Your task to perform on an android device: refresh tabs in the chrome app Image 0: 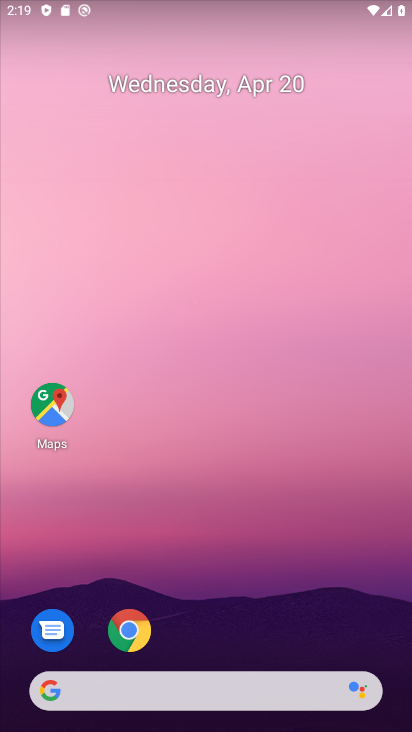
Step 0: click (140, 621)
Your task to perform on an android device: refresh tabs in the chrome app Image 1: 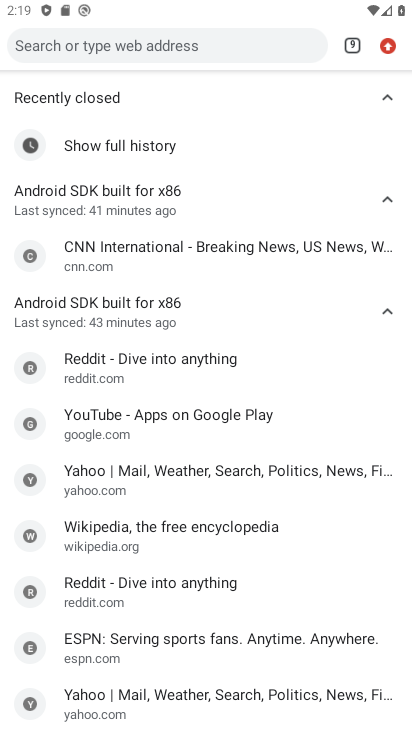
Step 1: click (359, 42)
Your task to perform on an android device: refresh tabs in the chrome app Image 2: 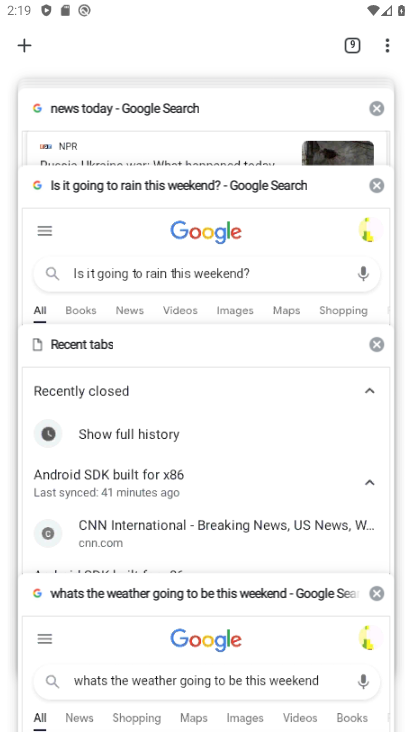
Step 2: click (148, 647)
Your task to perform on an android device: refresh tabs in the chrome app Image 3: 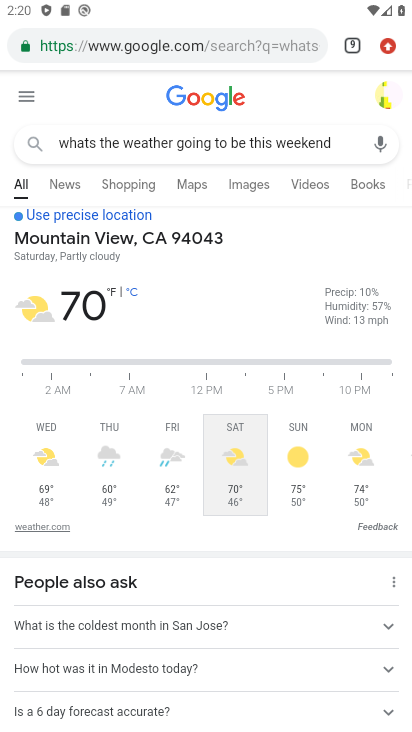
Step 3: task complete